Your task to perform on an android device: set default search engine in the chrome app Image 0: 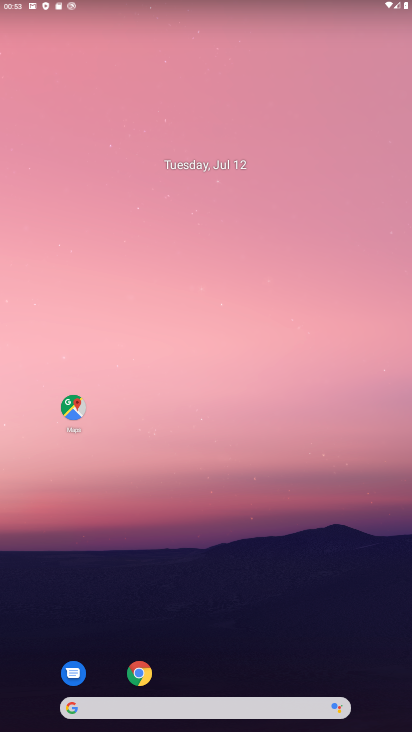
Step 0: press home button
Your task to perform on an android device: set default search engine in the chrome app Image 1: 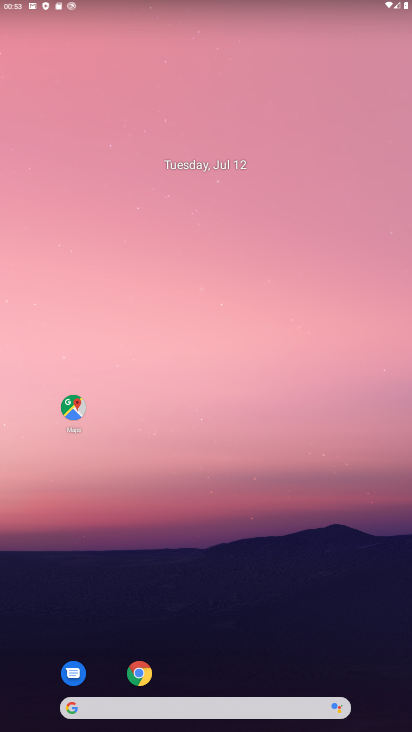
Step 1: drag from (248, 658) to (219, 191)
Your task to perform on an android device: set default search engine in the chrome app Image 2: 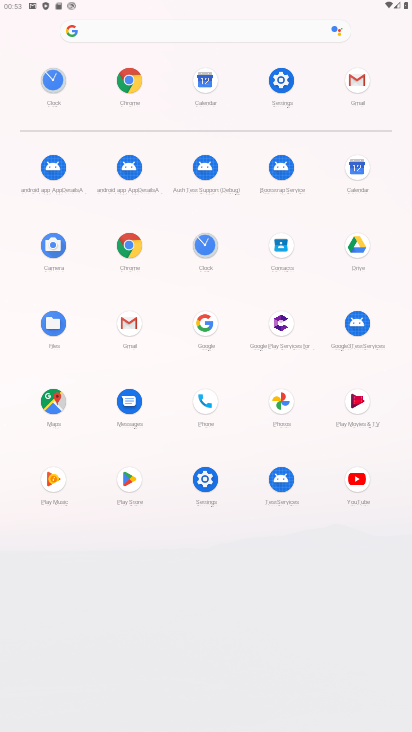
Step 2: click (127, 245)
Your task to perform on an android device: set default search engine in the chrome app Image 3: 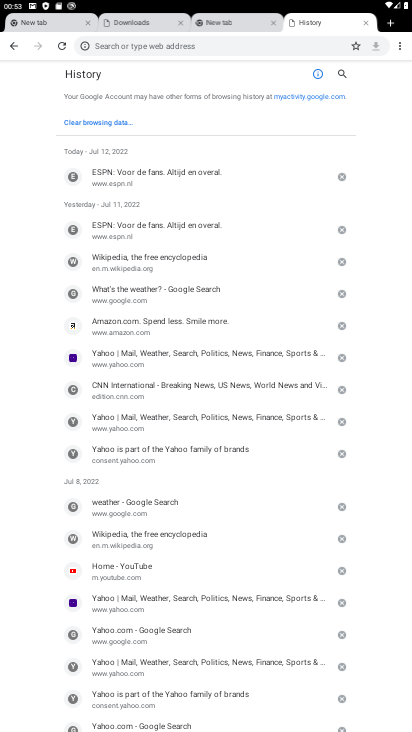
Step 3: drag from (399, 45) to (400, 105)
Your task to perform on an android device: set default search engine in the chrome app Image 4: 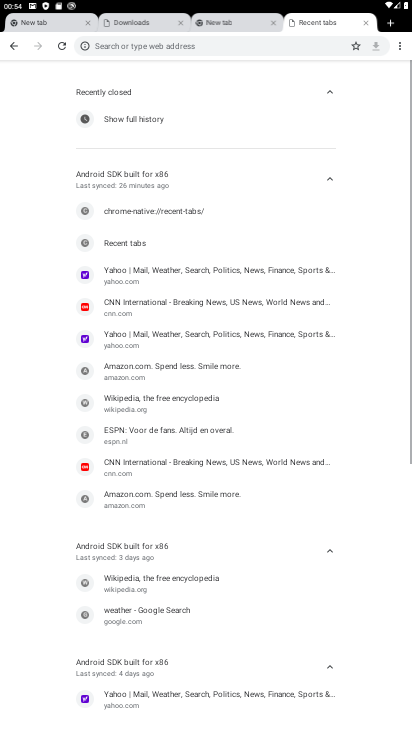
Step 4: click (389, 37)
Your task to perform on an android device: set default search engine in the chrome app Image 5: 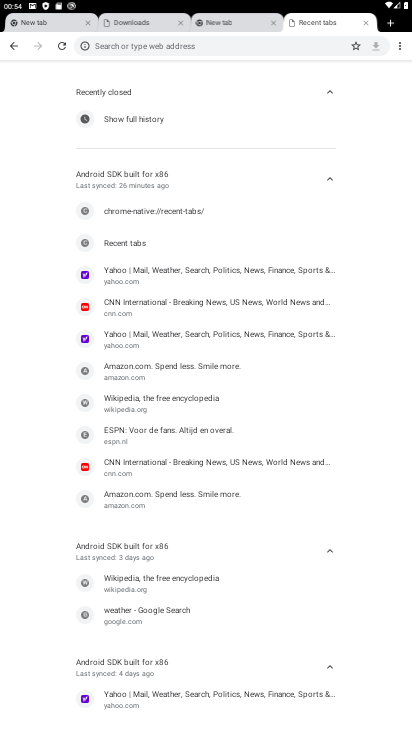
Step 5: click (389, 43)
Your task to perform on an android device: set default search engine in the chrome app Image 6: 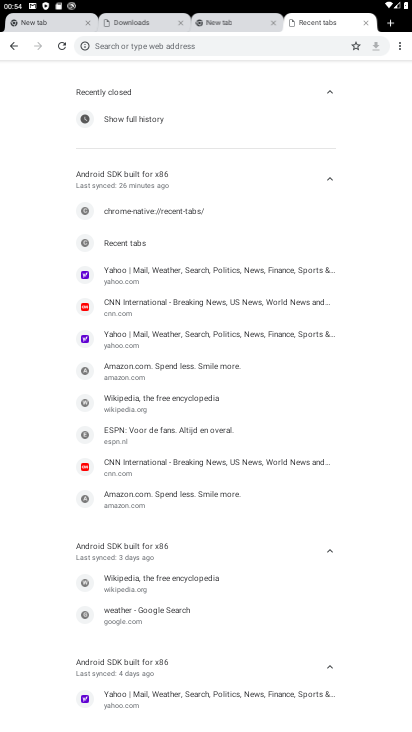
Step 6: click (394, 43)
Your task to perform on an android device: set default search engine in the chrome app Image 7: 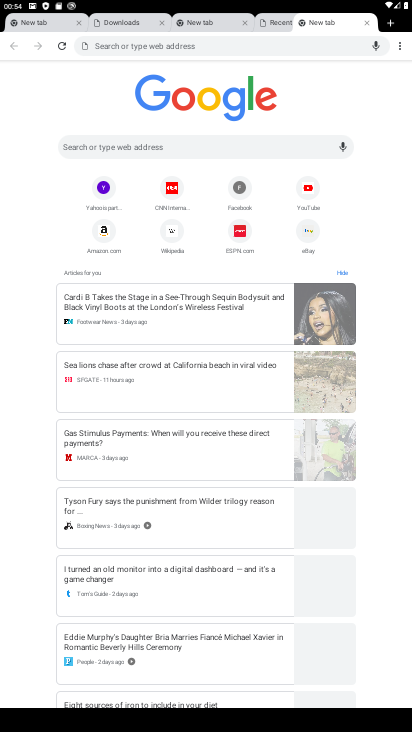
Step 7: drag from (396, 42) to (310, 213)
Your task to perform on an android device: set default search engine in the chrome app Image 8: 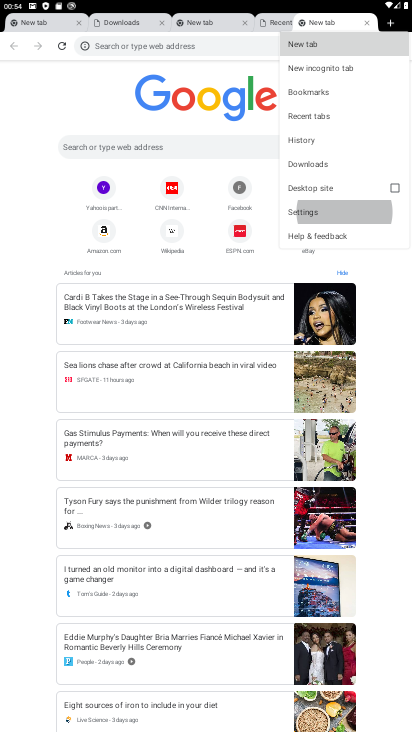
Step 8: drag from (395, 42) to (310, 213)
Your task to perform on an android device: set default search engine in the chrome app Image 9: 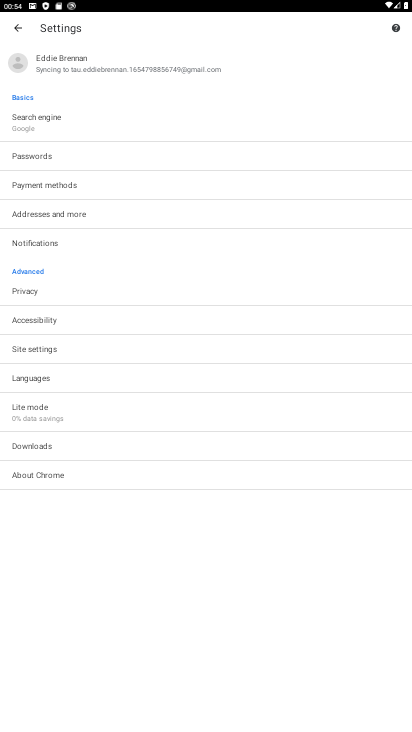
Step 9: click (30, 125)
Your task to perform on an android device: set default search engine in the chrome app Image 10: 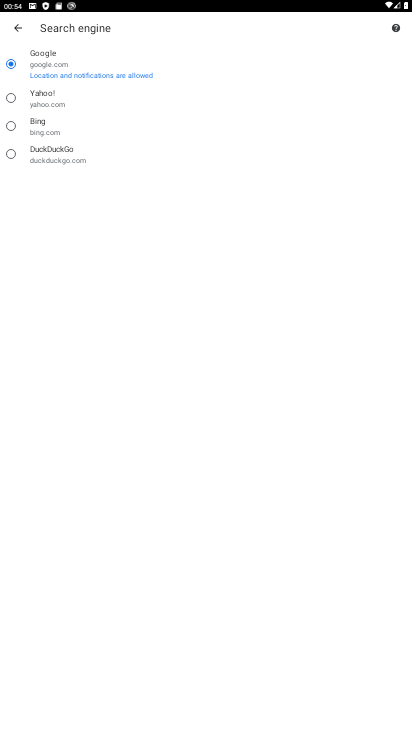
Step 10: click (8, 100)
Your task to perform on an android device: set default search engine in the chrome app Image 11: 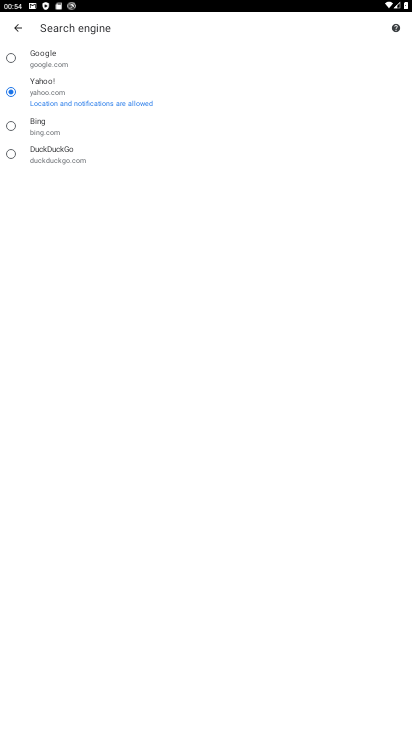
Step 11: task complete